Your task to perform on an android device: empty trash in the gmail app Image 0: 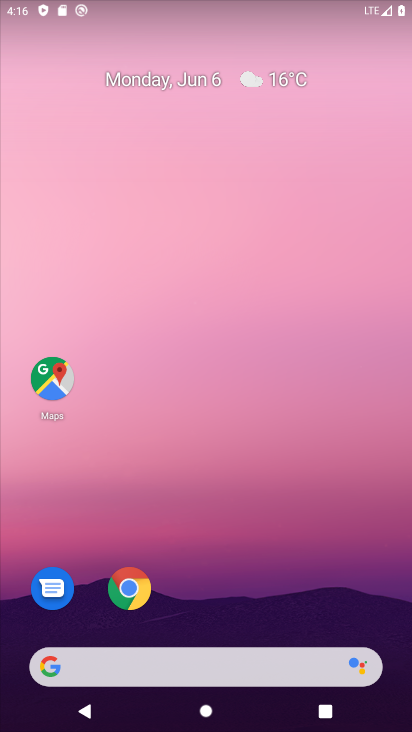
Step 0: drag from (225, 672) to (166, 196)
Your task to perform on an android device: empty trash in the gmail app Image 1: 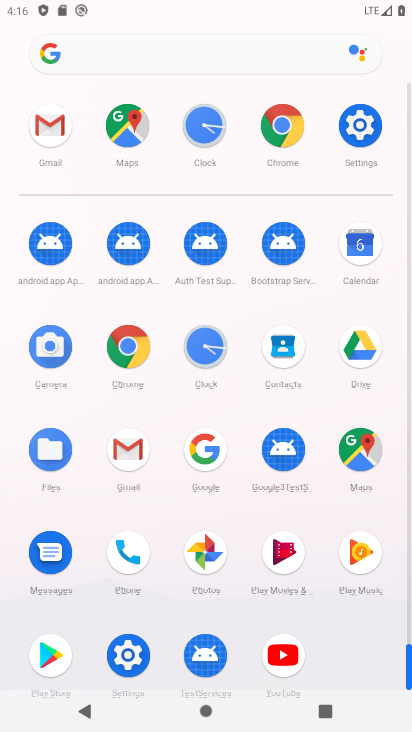
Step 1: click (131, 448)
Your task to perform on an android device: empty trash in the gmail app Image 2: 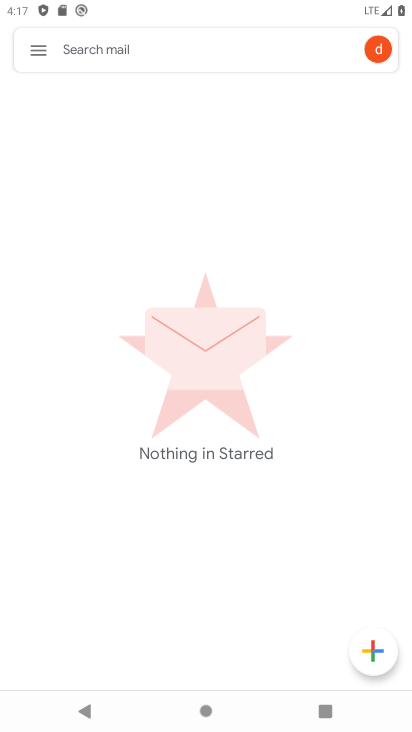
Step 2: click (32, 58)
Your task to perform on an android device: empty trash in the gmail app Image 3: 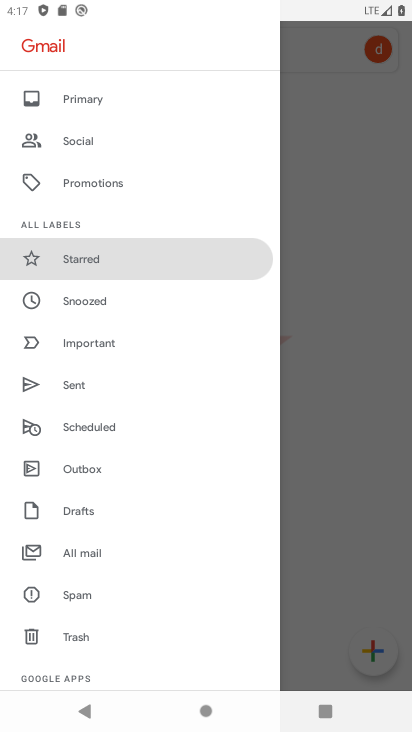
Step 3: click (75, 636)
Your task to perform on an android device: empty trash in the gmail app Image 4: 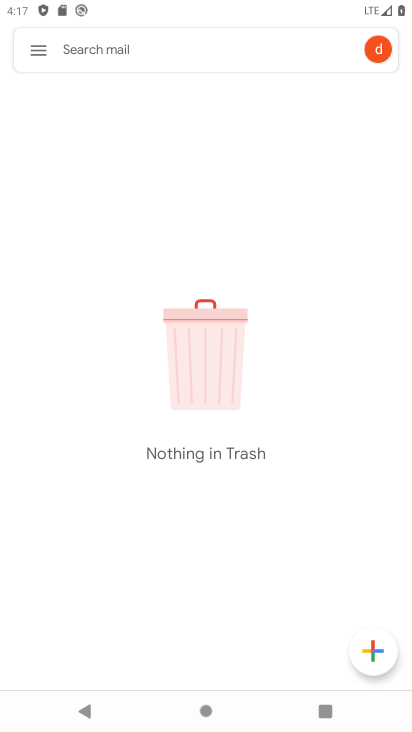
Step 4: click (39, 58)
Your task to perform on an android device: empty trash in the gmail app Image 5: 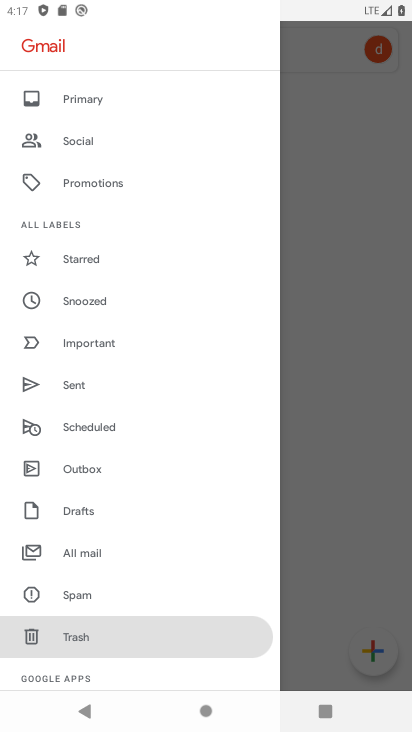
Step 5: click (81, 640)
Your task to perform on an android device: empty trash in the gmail app Image 6: 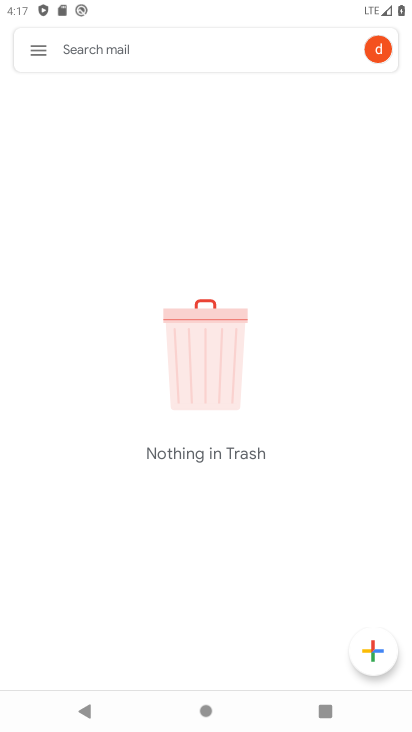
Step 6: task complete